Your task to perform on an android device: open sync settings in chrome Image 0: 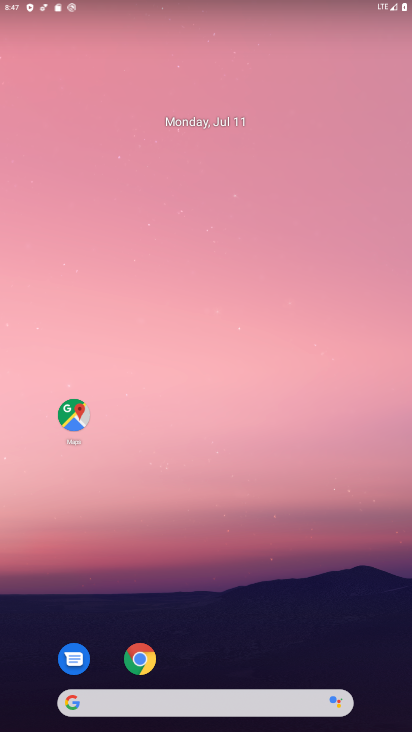
Step 0: click (150, 666)
Your task to perform on an android device: open sync settings in chrome Image 1: 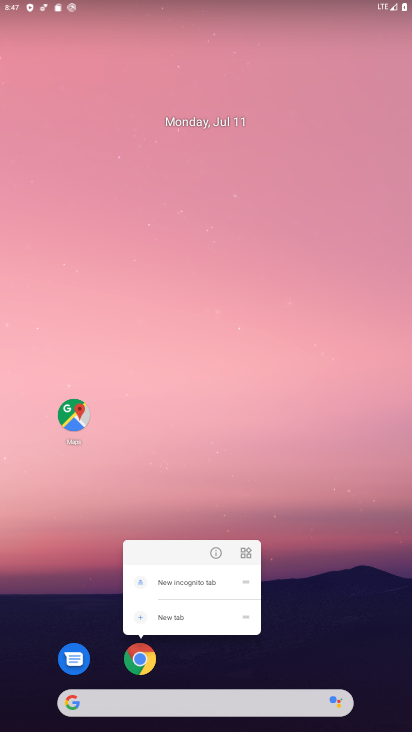
Step 1: click (117, 649)
Your task to perform on an android device: open sync settings in chrome Image 2: 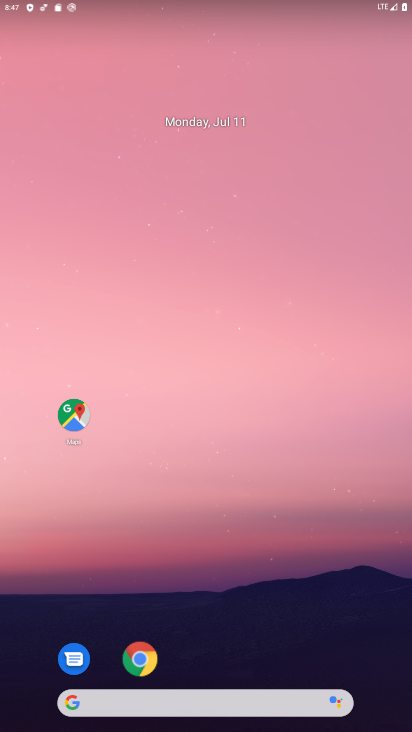
Step 2: click (127, 655)
Your task to perform on an android device: open sync settings in chrome Image 3: 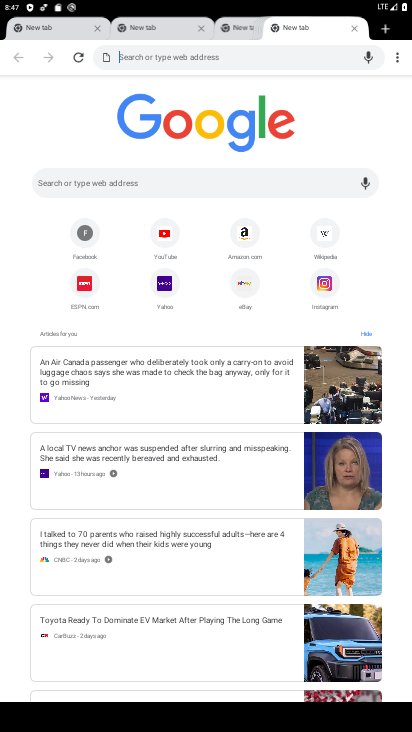
Step 3: click (391, 54)
Your task to perform on an android device: open sync settings in chrome Image 4: 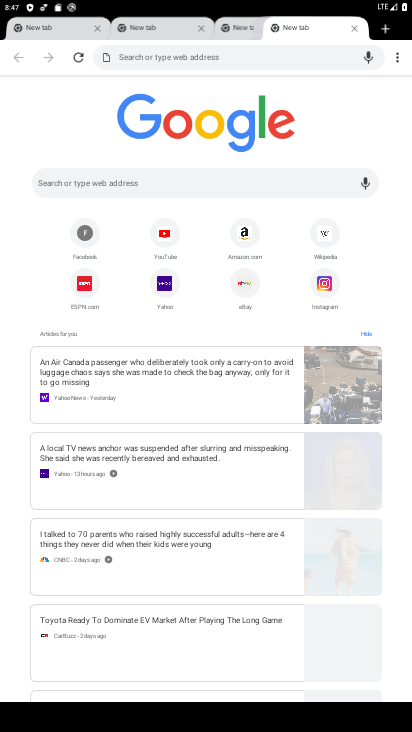
Step 4: click (398, 54)
Your task to perform on an android device: open sync settings in chrome Image 5: 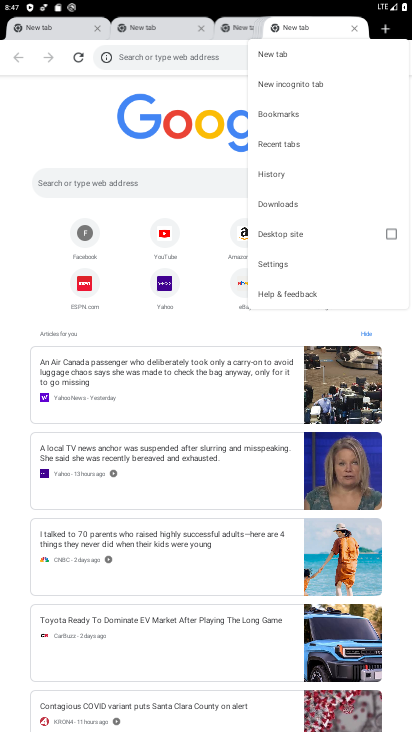
Step 5: click (267, 265)
Your task to perform on an android device: open sync settings in chrome Image 6: 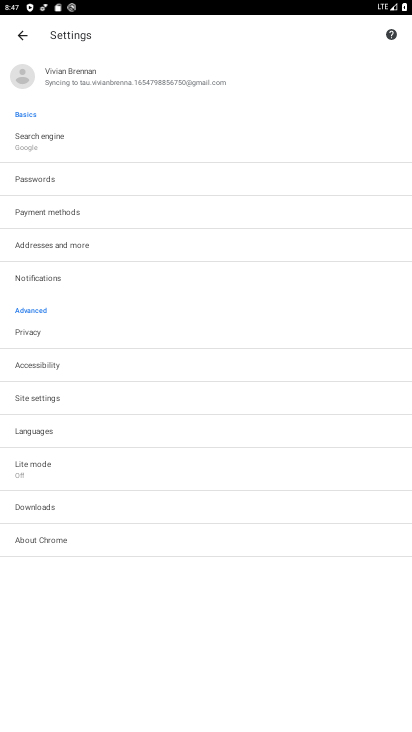
Step 6: click (48, 278)
Your task to perform on an android device: open sync settings in chrome Image 7: 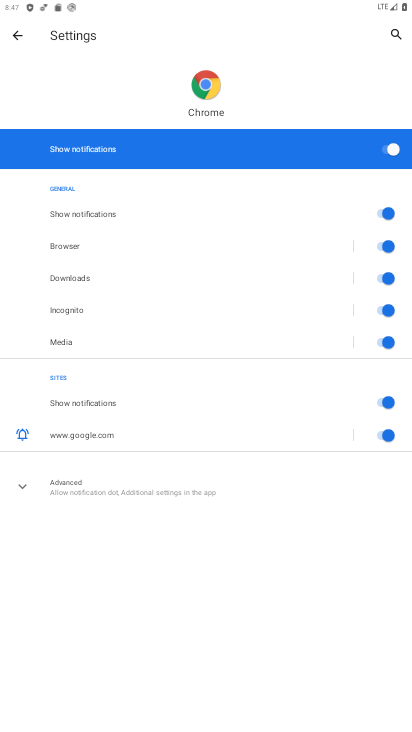
Step 7: click (78, 488)
Your task to perform on an android device: open sync settings in chrome Image 8: 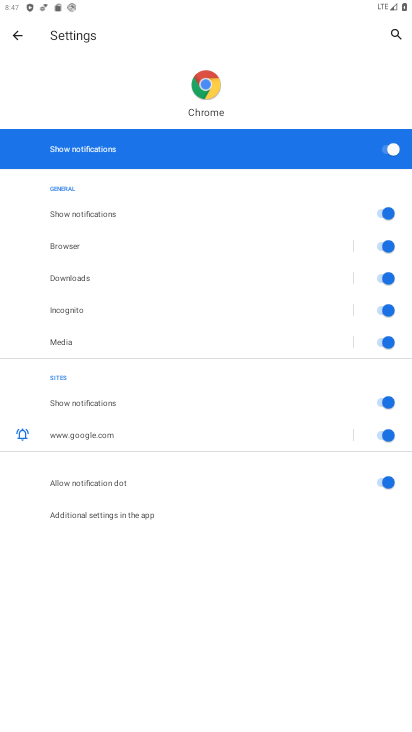
Step 8: click (17, 35)
Your task to perform on an android device: open sync settings in chrome Image 9: 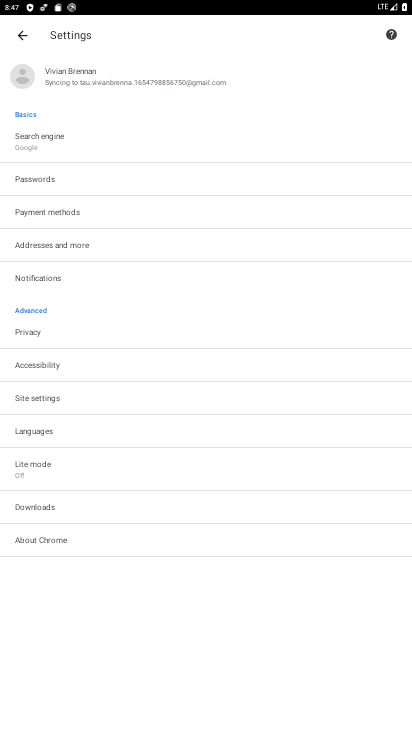
Step 9: click (48, 358)
Your task to perform on an android device: open sync settings in chrome Image 10: 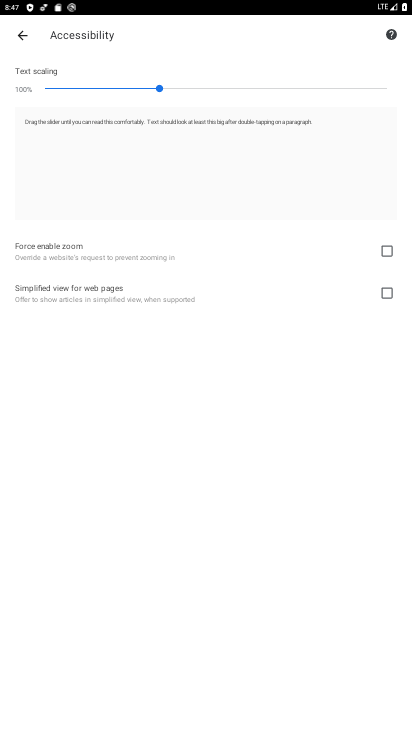
Step 10: click (22, 29)
Your task to perform on an android device: open sync settings in chrome Image 11: 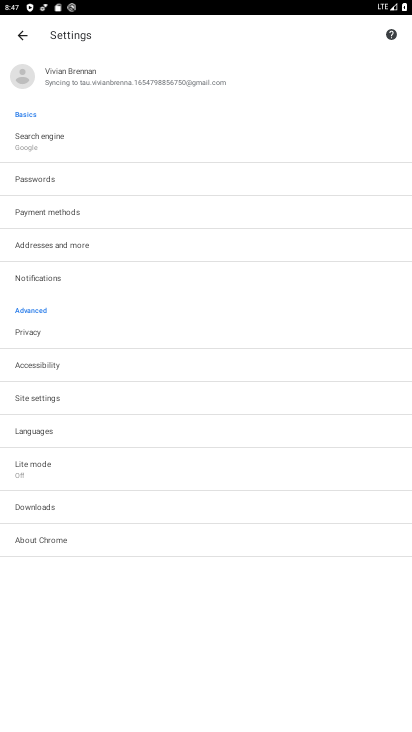
Step 11: click (50, 394)
Your task to perform on an android device: open sync settings in chrome Image 12: 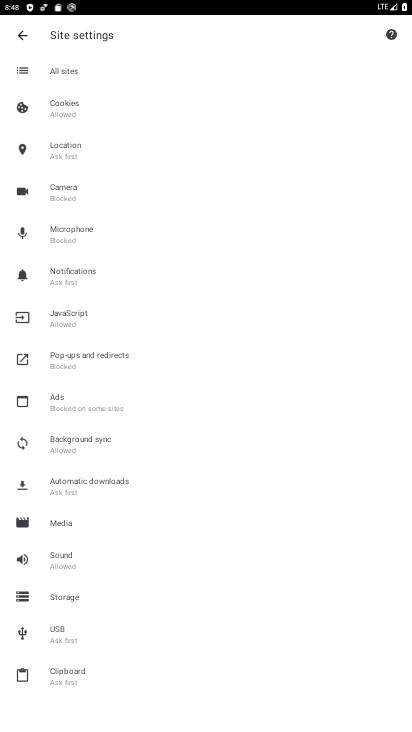
Step 12: click (25, 37)
Your task to perform on an android device: open sync settings in chrome Image 13: 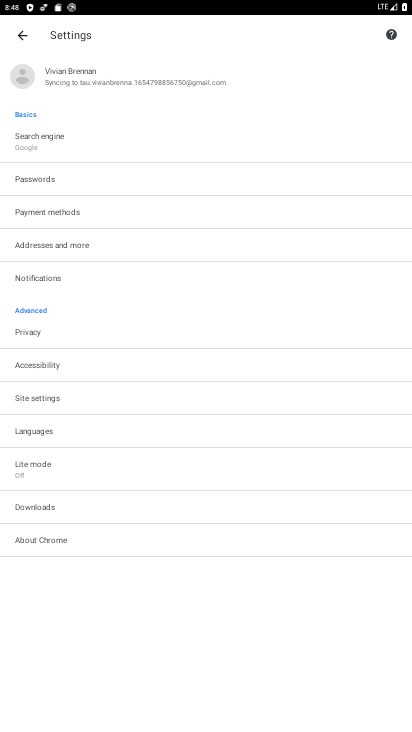
Step 13: click (20, 33)
Your task to perform on an android device: open sync settings in chrome Image 14: 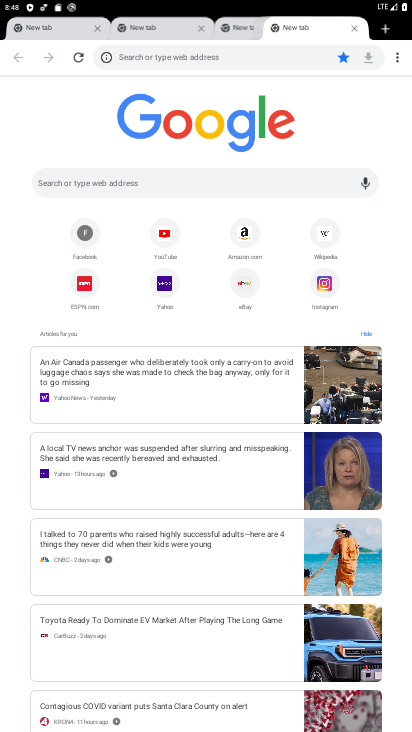
Step 14: task complete